Your task to perform on an android device: open app "Google Find My Device" (install if not already installed) Image 0: 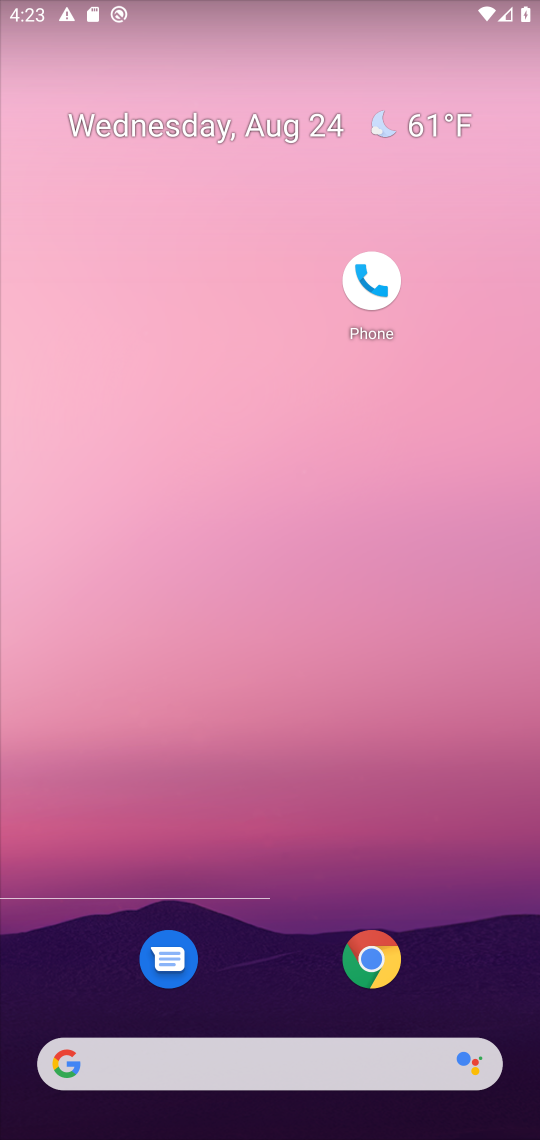
Step 0: press home button
Your task to perform on an android device: open app "Google Find My Device" (install if not already installed) Image 1: 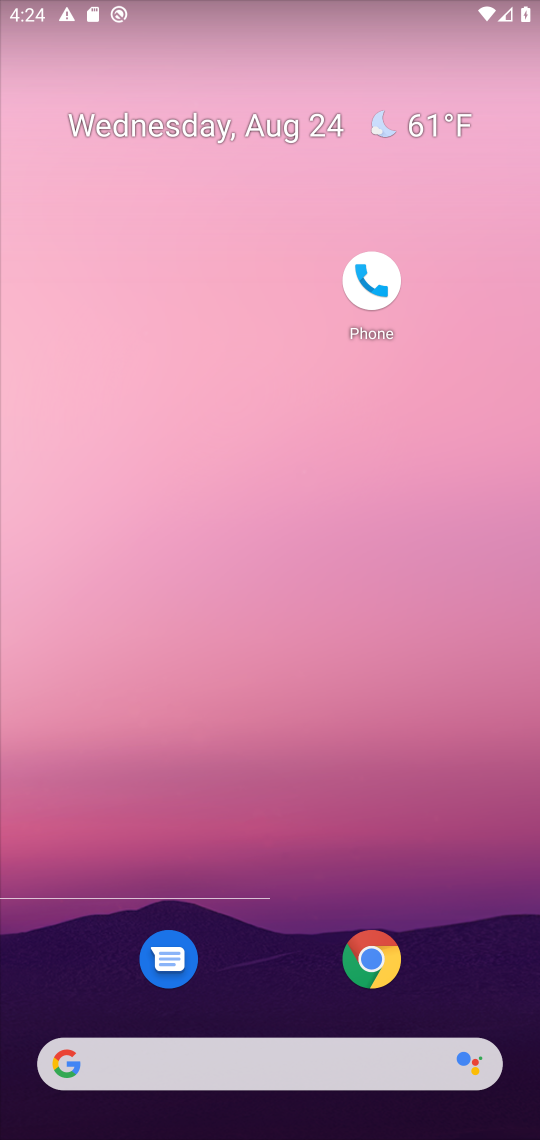
Step 1: drag from (270, 996) to (276, 111)
Your task to perform on an android device: open app "Google Find My Device" (install if not already installed) Image 2: 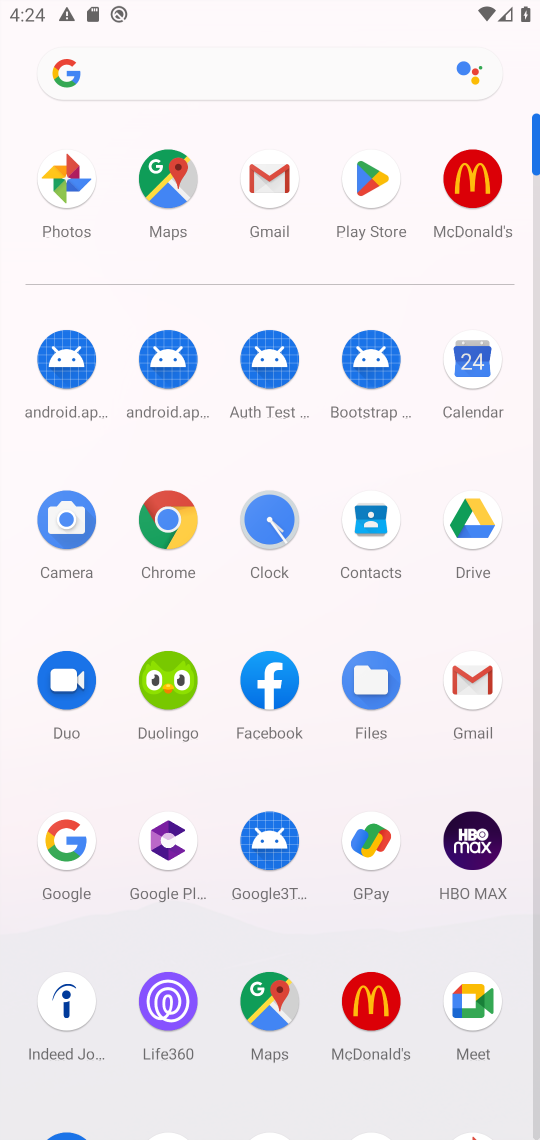
Step 2: click (373, 170)
Your task to perform on an android device: open app "Google Find My Device" (install if not already installed) Image 3: 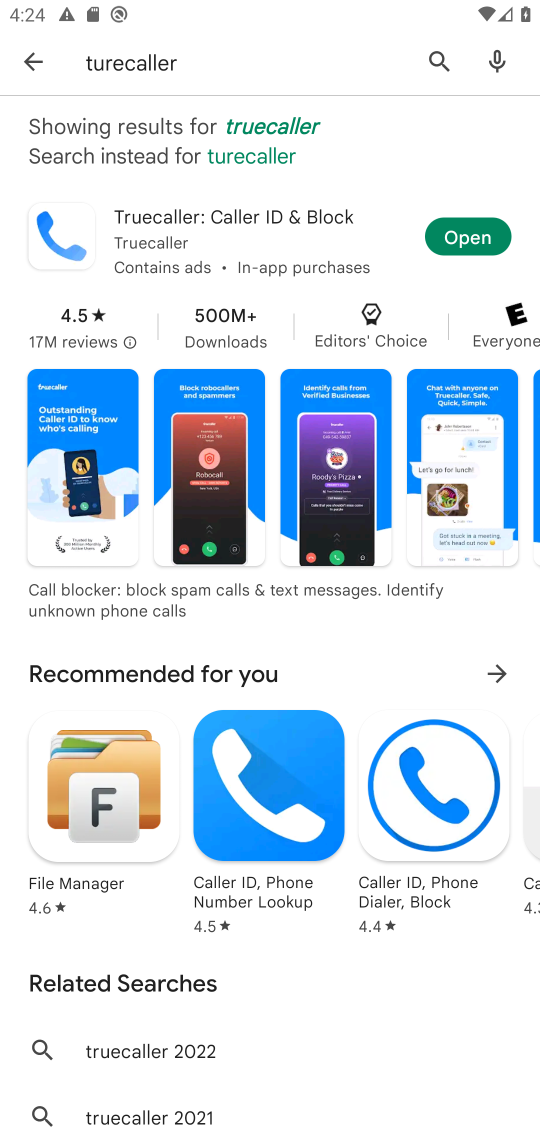
Step 3: click (429, 62)
Your task to perform on an android device: open app "Google Find My Device" (install if not already installed) Image 4: 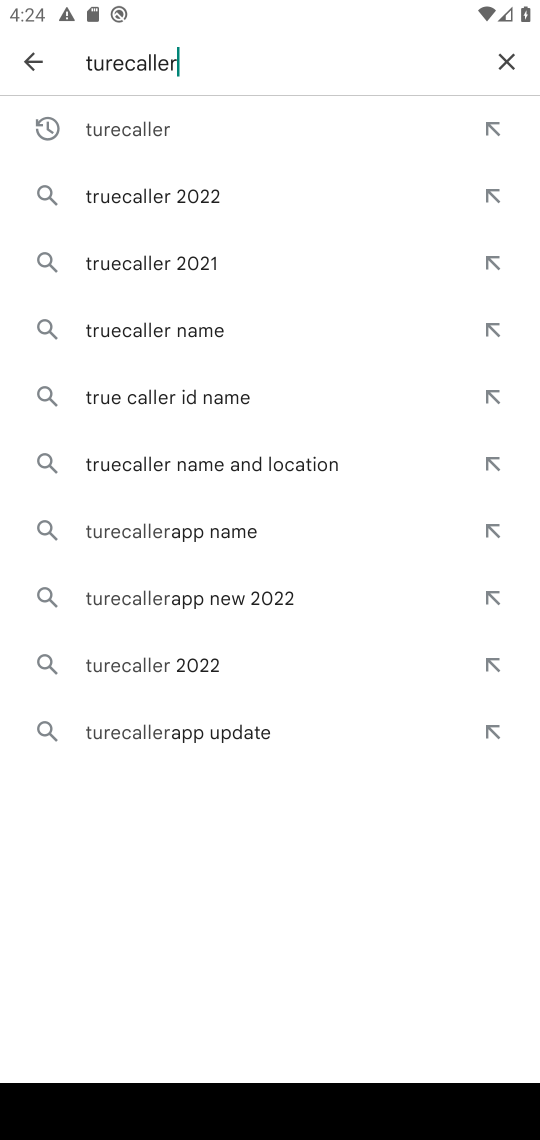
Step 4: click (508, 62)
Your task to perform on an android device: open app "Google Find My Device" (install if not already installed) Image 5: 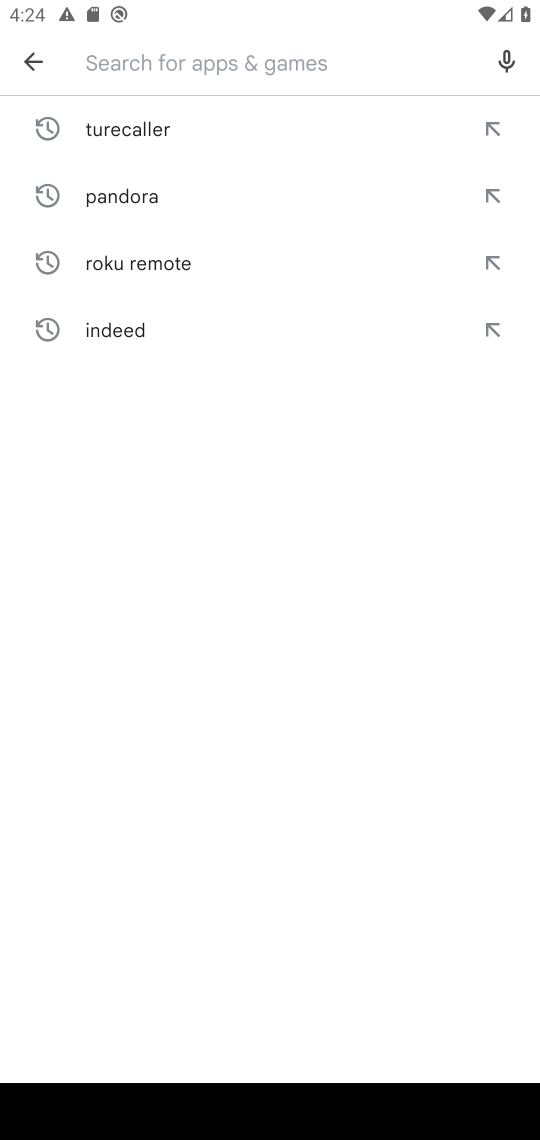
Step 5: type "goole find my device'"
Your task to perform on an android device: open app "Google Find My Device" (install if not already installed) Image 6: 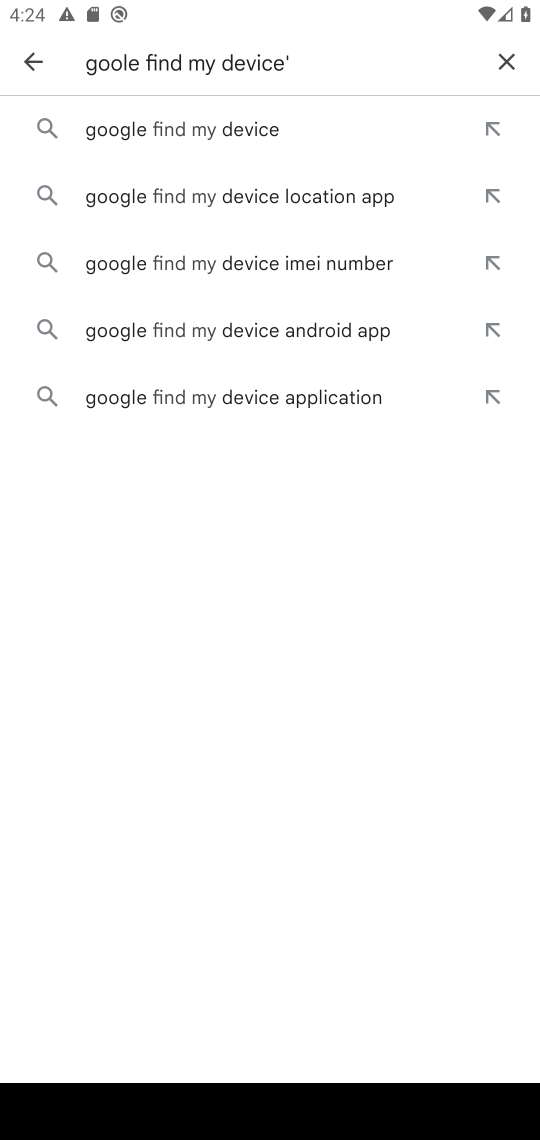
Step 6: click (258, 109)
Your task to perform on an android device: open app "Google Find My Device" (install if not already installed) Image 7: 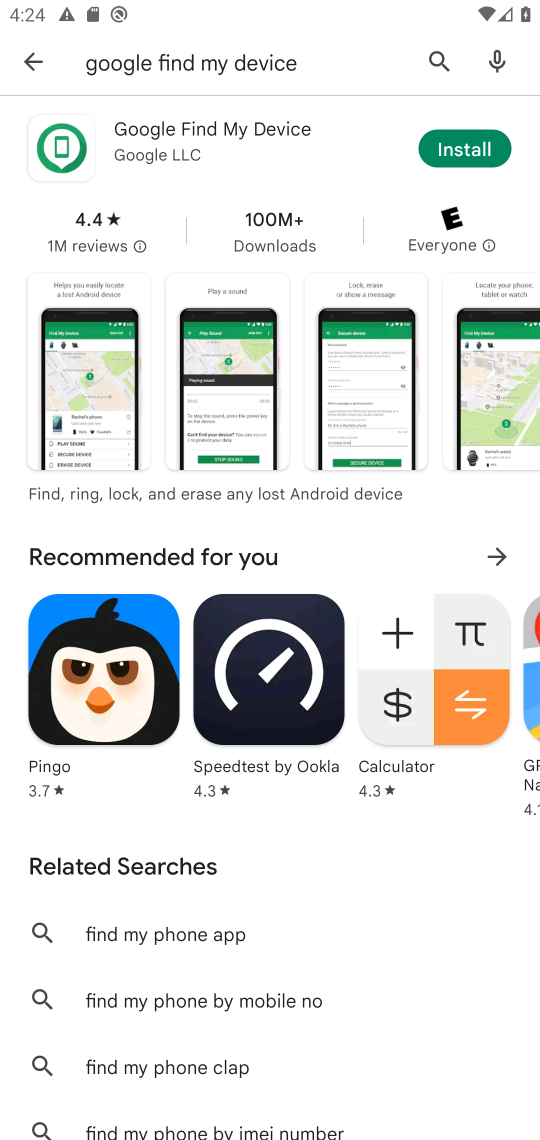
Step 7: click (458, 147)
Your task to perform on an android device: open app "Google Find My Device" (install if not already installed) Image 8: 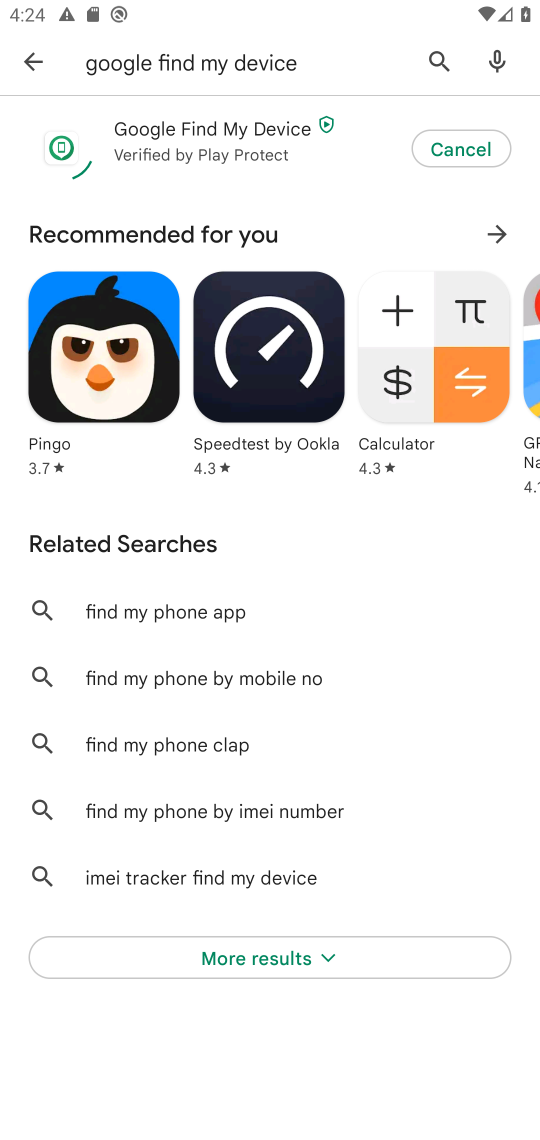
Step 8: task complete